Your task to perform on an android device: Go to accessibility settings Image 0: 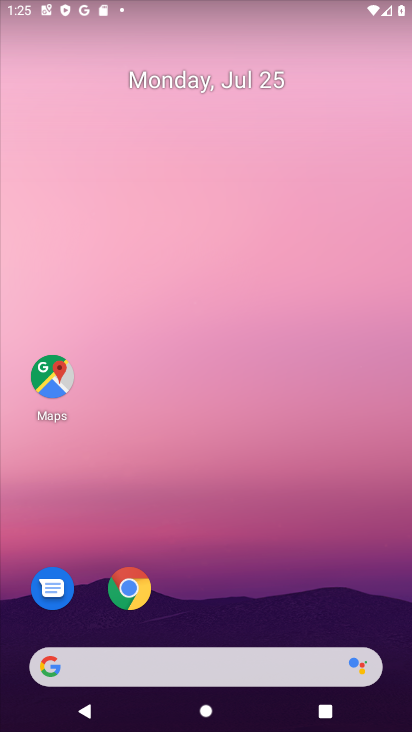
Step 0: drag from (188, 565) to (227, 16)
Your task to perform on an android device: Go to accessibility settings Image 1: 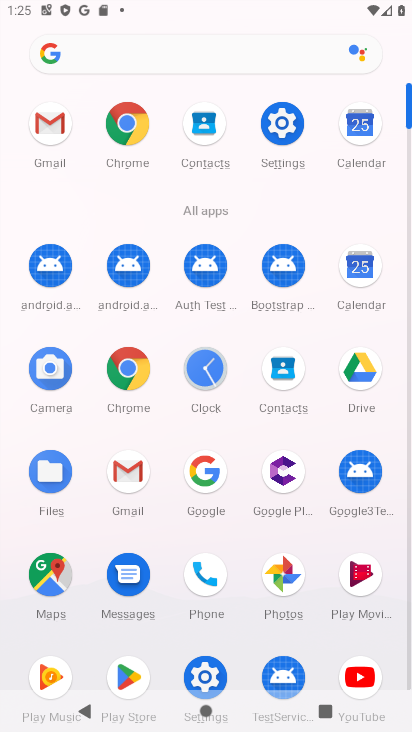
Step 1: click (283, 129)
Your task to perform on an android device: Go to accessibility settings Image 2: 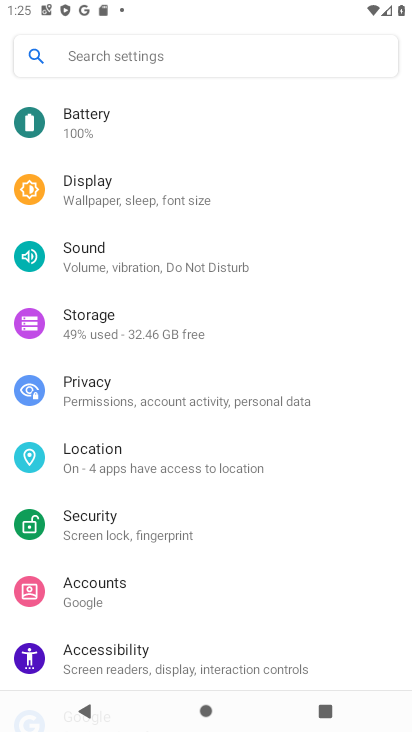
Step 2: click (84, 647)
Your task to perform on an android device: Go to accessibility settings Image 3: 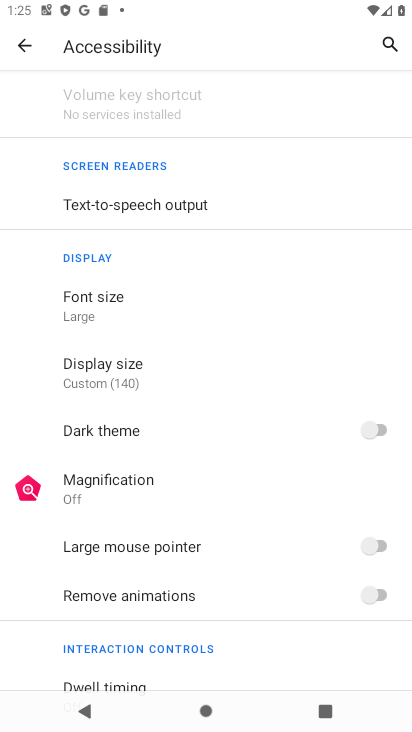
Step 3: task complete